Your task to perform on an android device: Open Google Maps and go to "Timeline" Image 0: 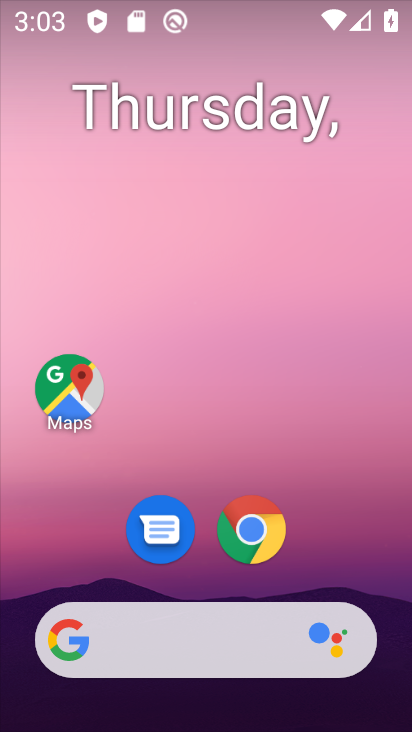
Step 0: click (70, 385)
Your task to perform on an android device: Open Google Maps and go to "Timeline" Image 1: 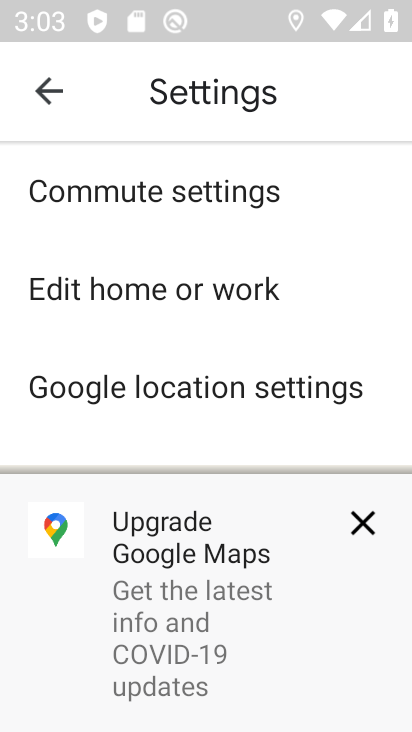
Step 1: press back button
Your task to perform on an android device: Open Google Maps and go to "Timeline" Image 2: 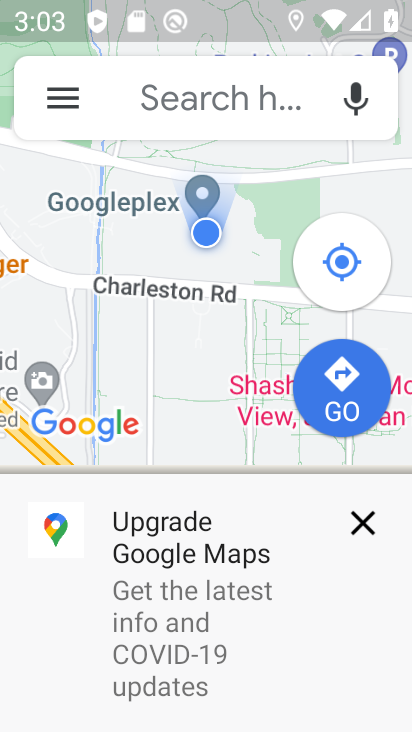
Step 2: click (70, 94)
Your task to perform on an android device: Open Google Maps and go to "Timeline" Image 3: 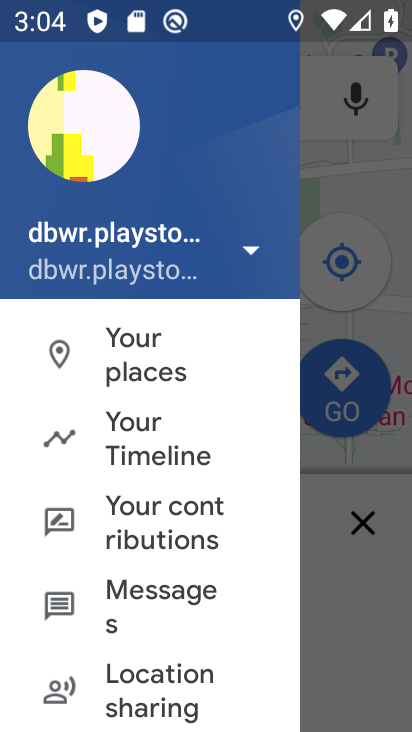
Step 3: click (163, 436)
Your task to perform on an android device: Open Google Maps and go to "Timeline" Image 4: 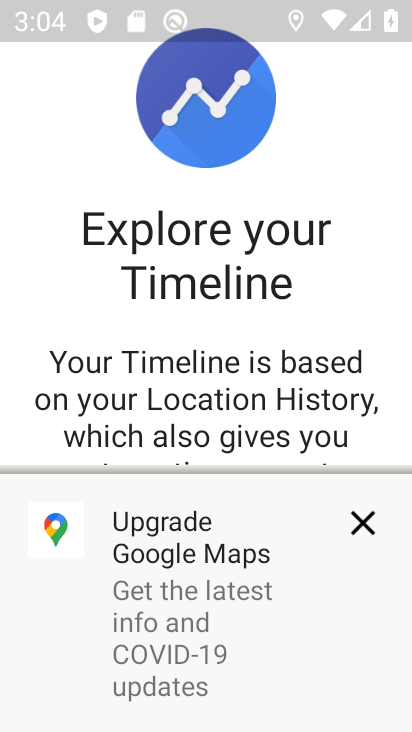
Step 4: click (362, 518)
Your task to perform on an android device: Open Google Maps and go to "Timeline" Image 5: 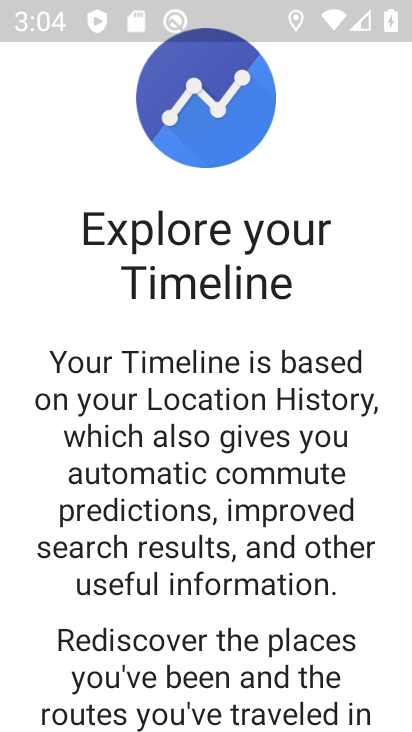
Step 5: drag from (254, 628) to (360, 224)
Your task to perform on an android device: Open Google Maps and go to "Timeline" Image 6: 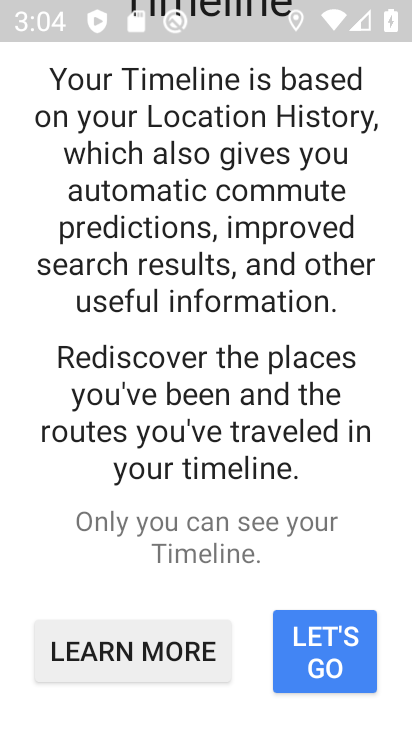
Step 6: click (334, 635)
Your task to perform on an android device: Open Google Maps and go to "Timeline" Image 7: 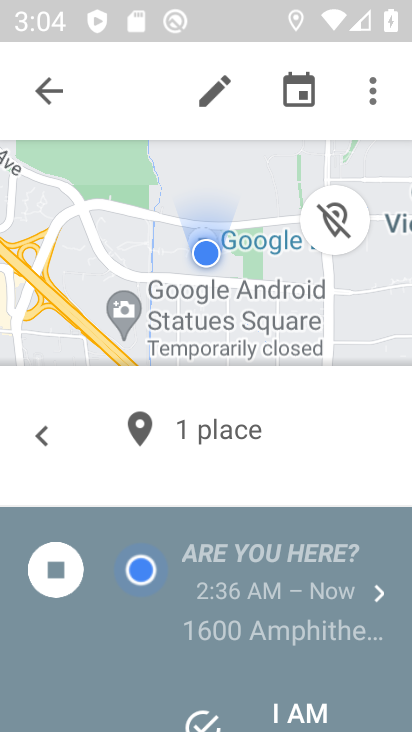
Step 7: task complete